Your task to perform on an android device: see sites visited before in the chrome app Image 0: 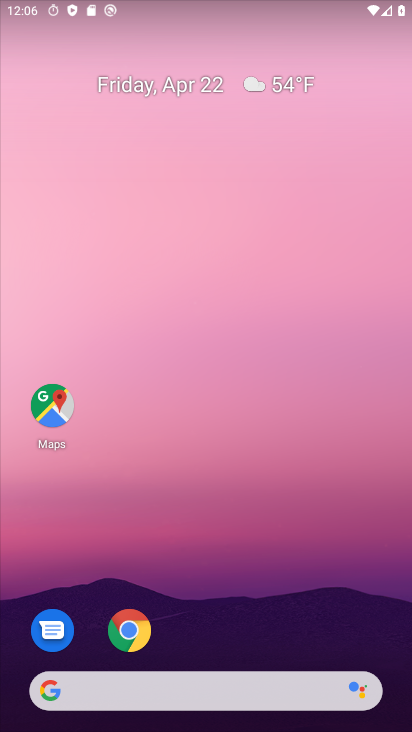
Step 0: click (126, 623)
Your task to perform on an android device: see sites visited before in the chrome app Image 1: 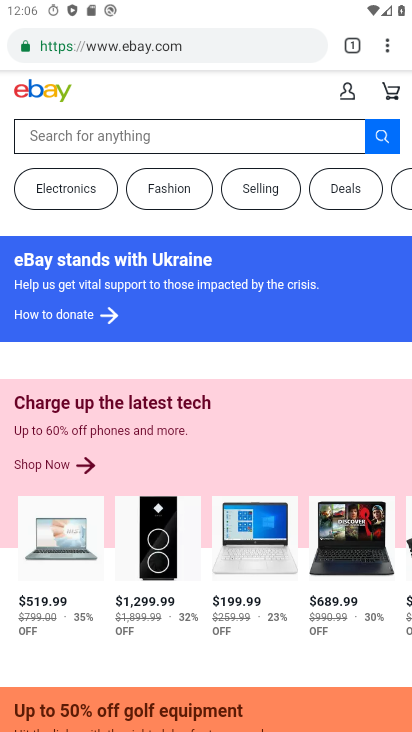
Step 1: click (389, 49)
Your task to perform on an android device: see sites visited before in the chrome app Image 2: 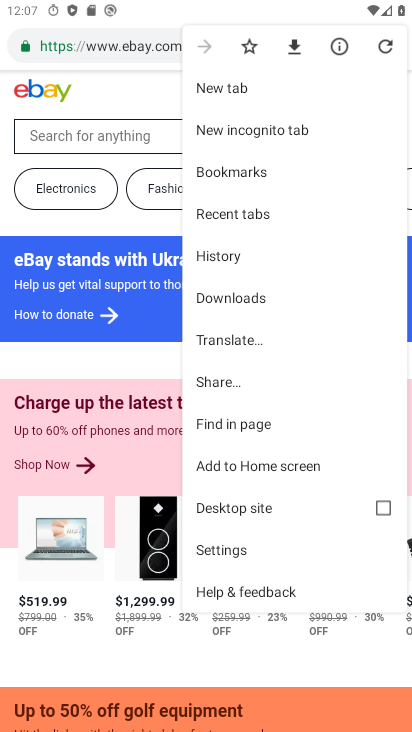
Step 2: click (228, 552)
Your task to perform on an android device: see sites visited before in the chrome app Image 3: 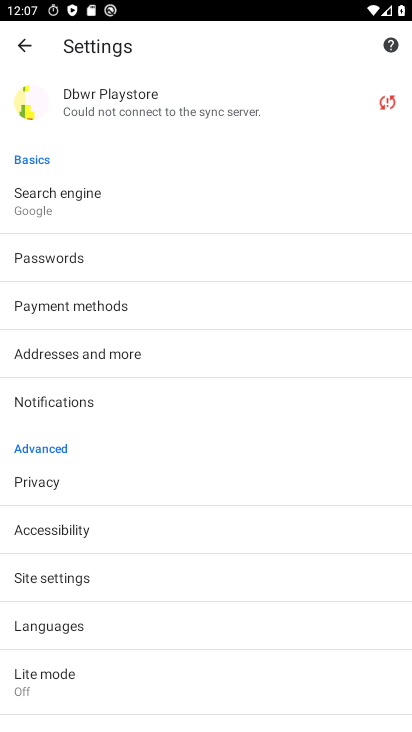
Step 3: click (39, 580)
Your task to perform on an android device: see sites visited before in the chrome app Image 4: 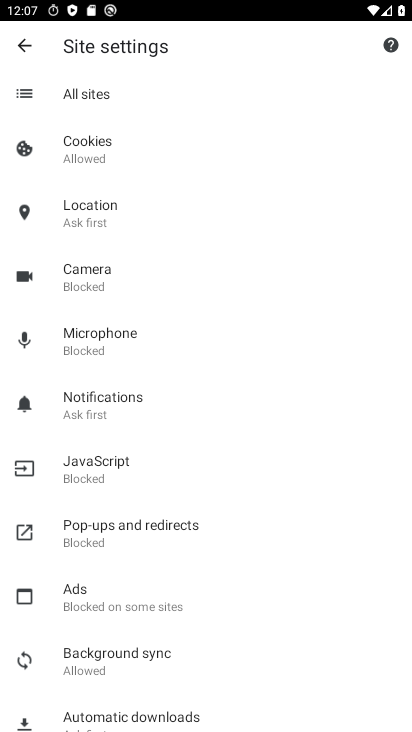
Step 4: task complete